Your task to perform on an android device: see sites visited before in the chrome app Image 0: 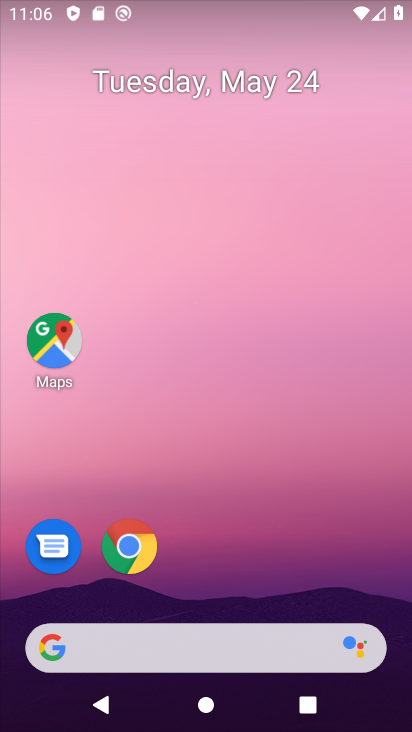
Step 0: click (145, 570)
Your task to perform on an android device: see sites visited before in the chrome app Image 1: 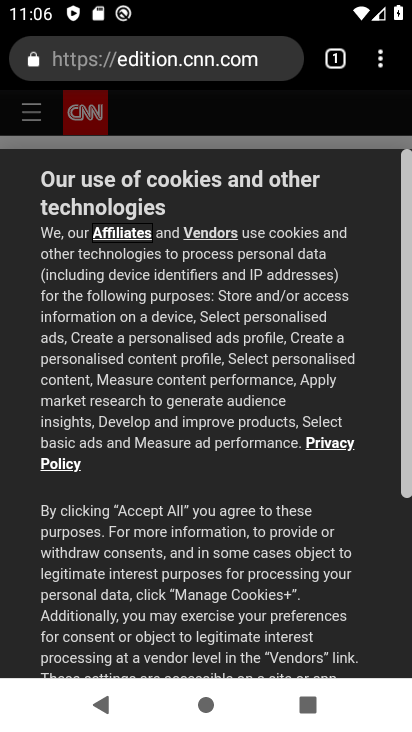
Step 1: click (379, 63)
Your task to perform on an android device: see sites visited before in the chrome app Image 2: 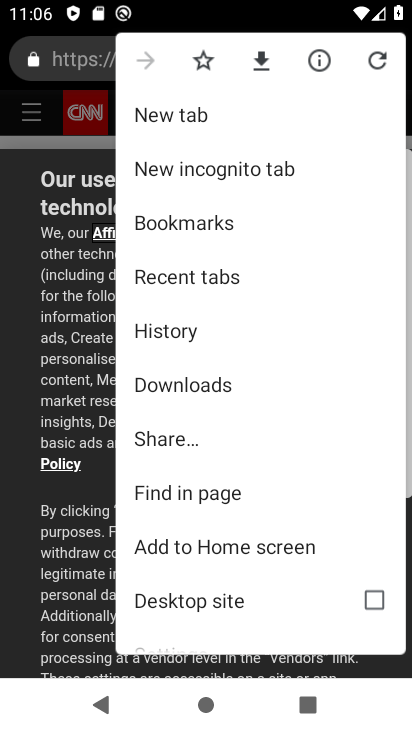
Step 2: click (212, 325)
Your task to perform on an android device: see sites visited before in the chrome app Image 3: 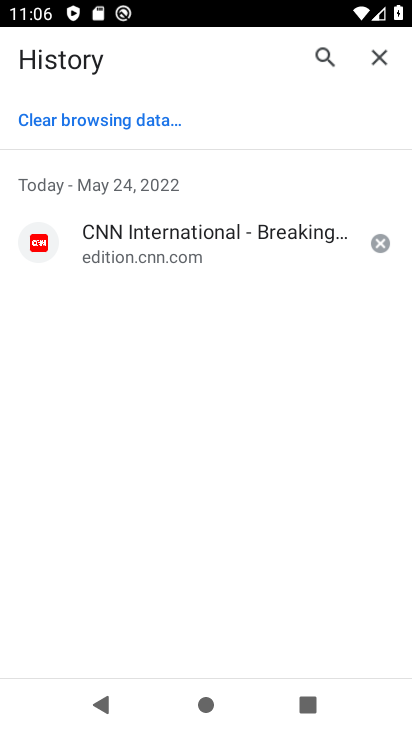
Step 3: task complete